Your task to perform on an android device: Search for "apple airpods pro" on target.com, select the first entry, add it to the cart, then select checkout. Image 0: 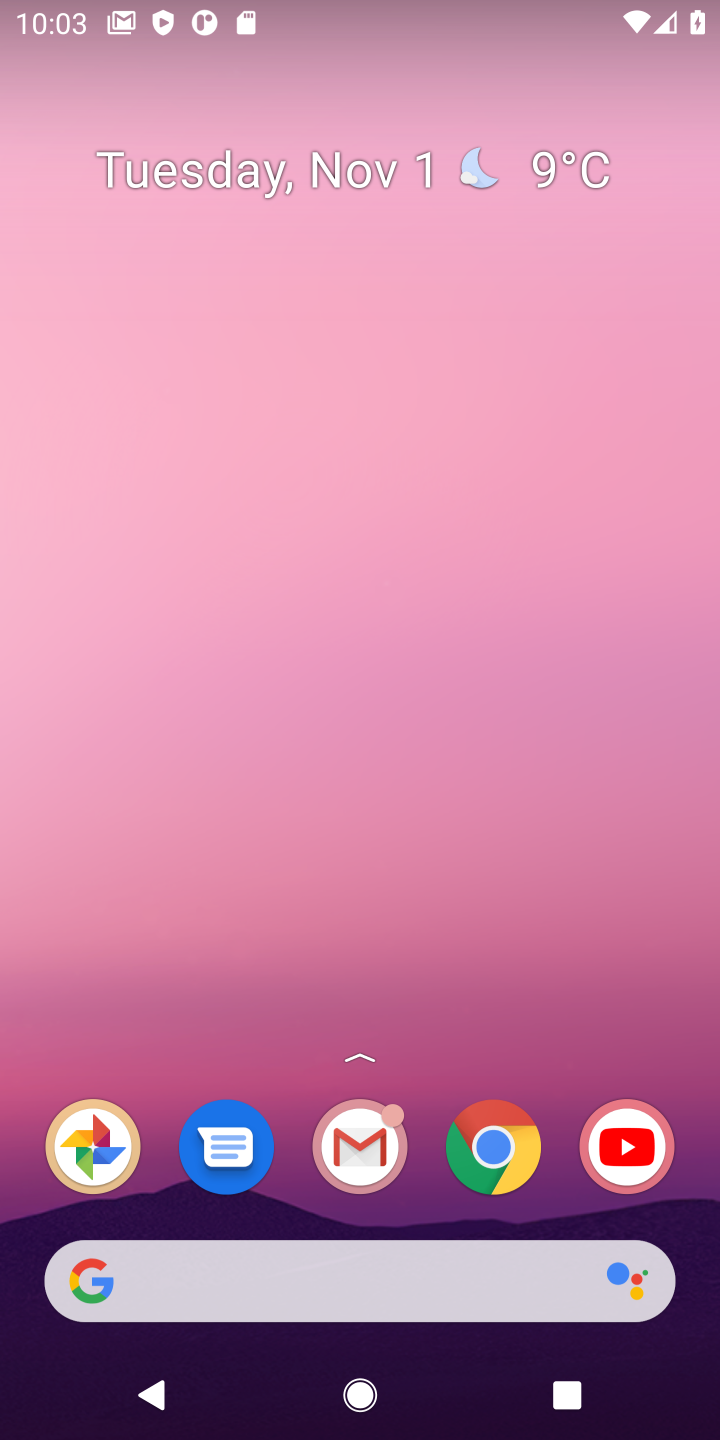
Step 0: click (483, 1137)
Your task to perform on an android device: Search for "apple airpods pro" on target.com, select the first entry, add it to the cart, then select checkout. Image 1: 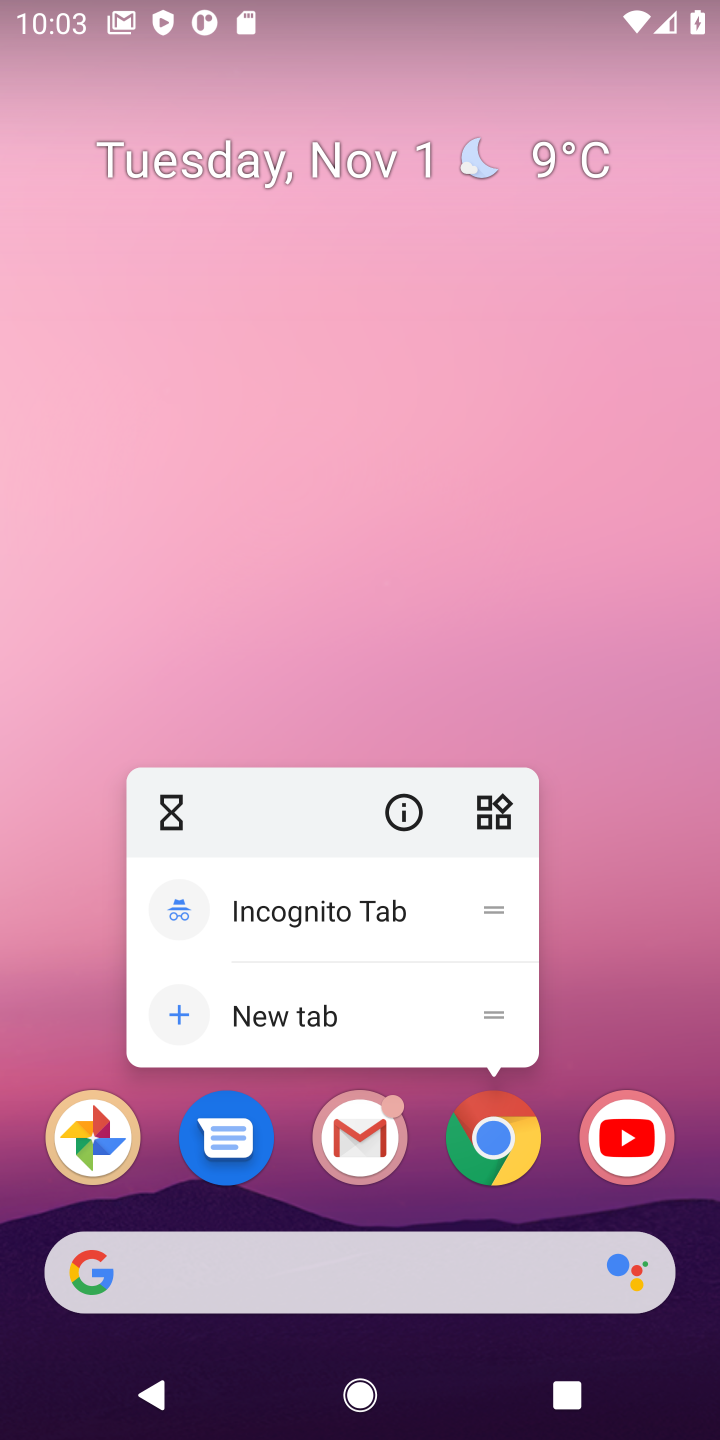
Step 1: click (487, 1157)
Your task to perform on an android device: Search for "apple airpods pro" on target.com, select the first entry, add it to the cart, then select checkout. Image 2: 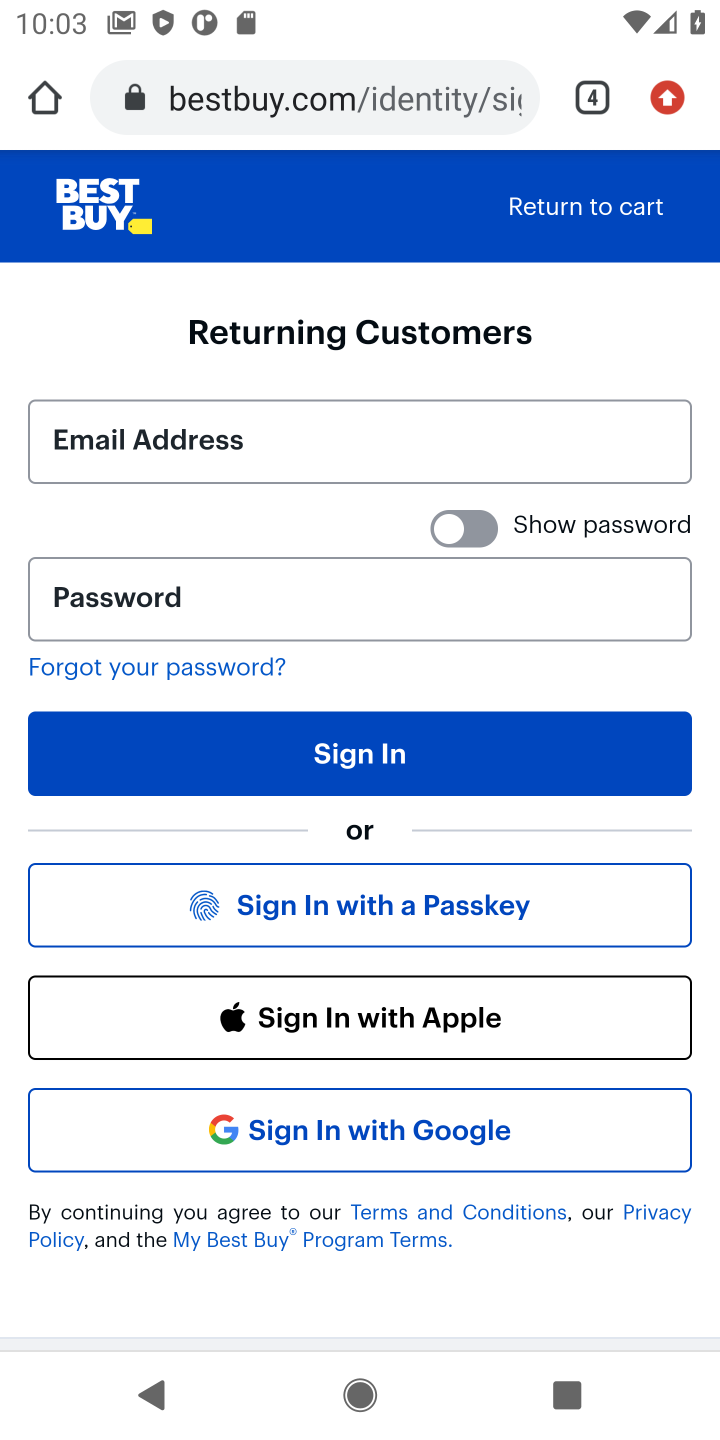
Step 2: click (598, 100)
Your task to perform on an android device: Search for "apple airpods pro" on target.com, select the first entry, add it to the cart, then select checkout. Image 3: 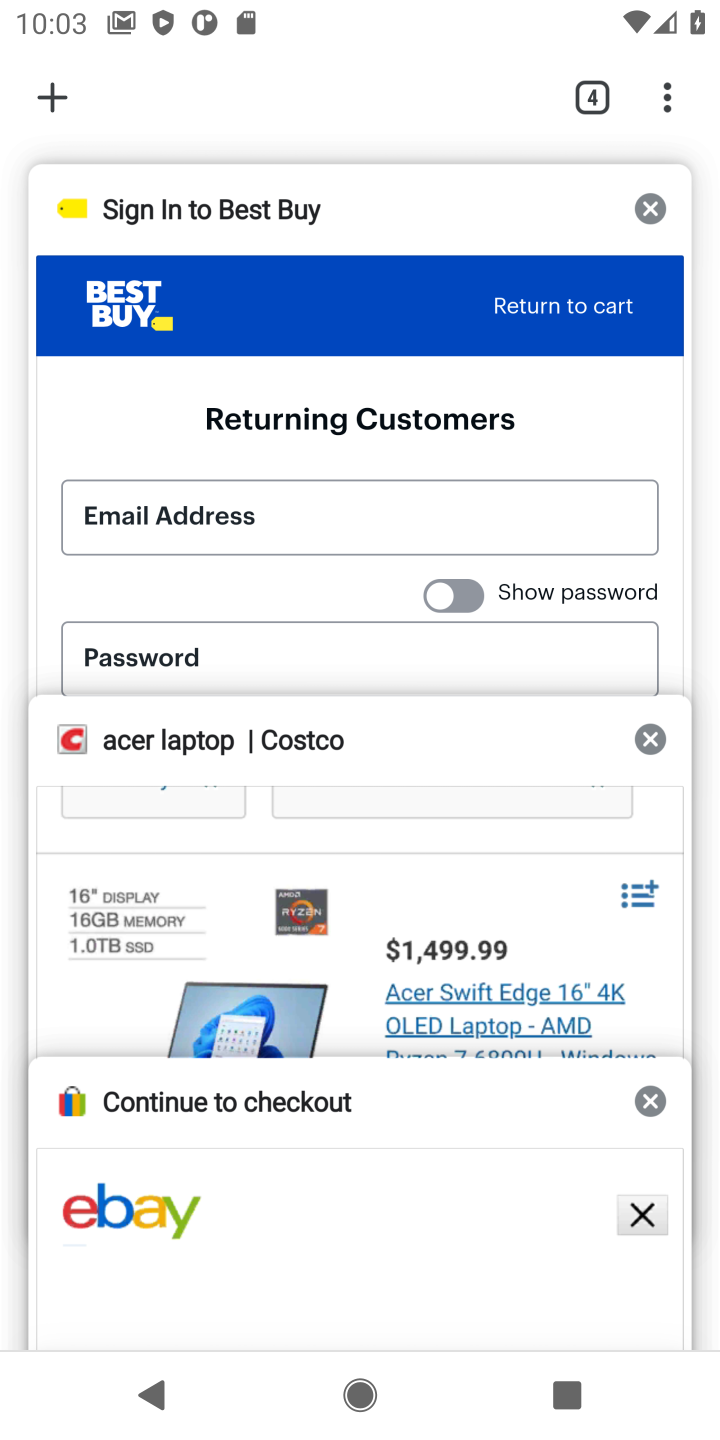
Step 3: drag from (203, 1172) to (294, 423)
Your task to perform on an android device: Search for "apple airpods pro" on target.com, select the first entry, add it to the cart, then select checkout. Image 4: 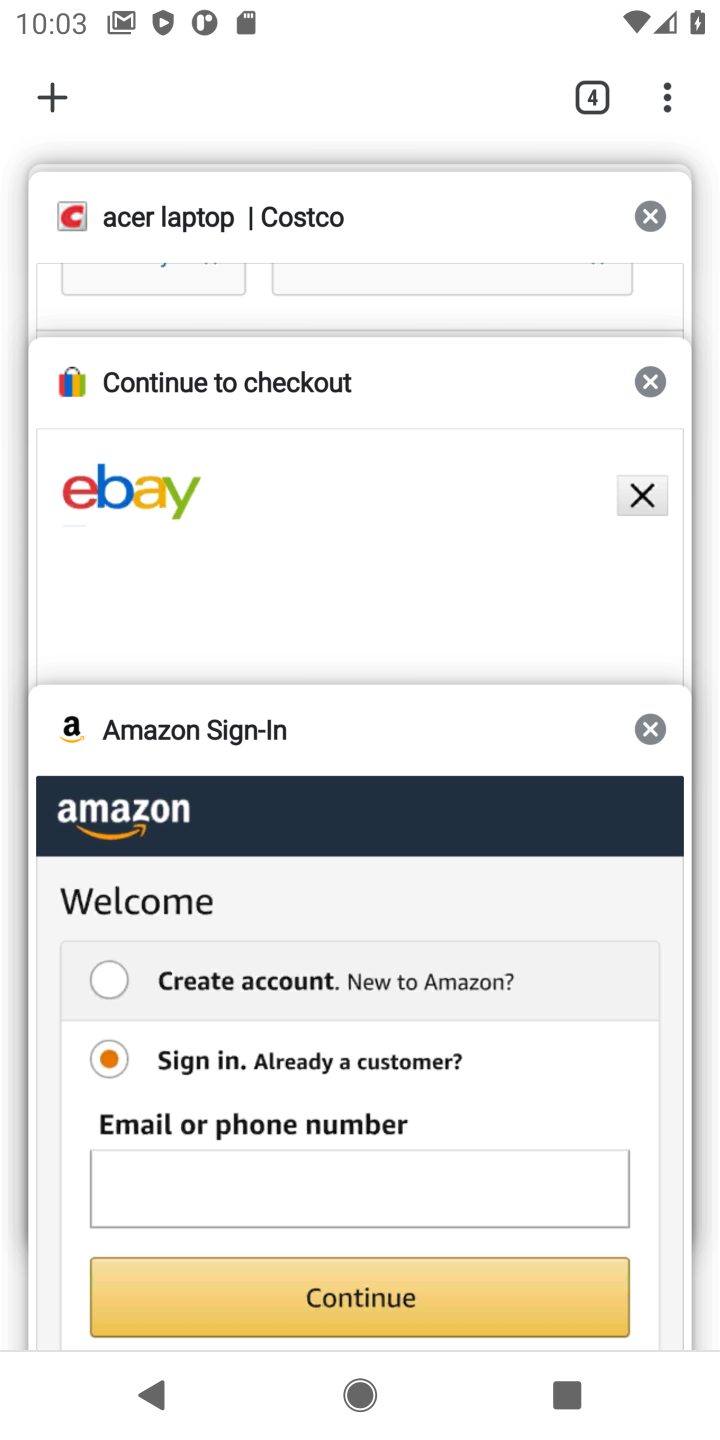
Step 4: click (53, 99)
Your task to perform on an android device: Search for "apple airpods pro" on target.com, select the first entry, add it to the cart, then select checkout. Image 5: 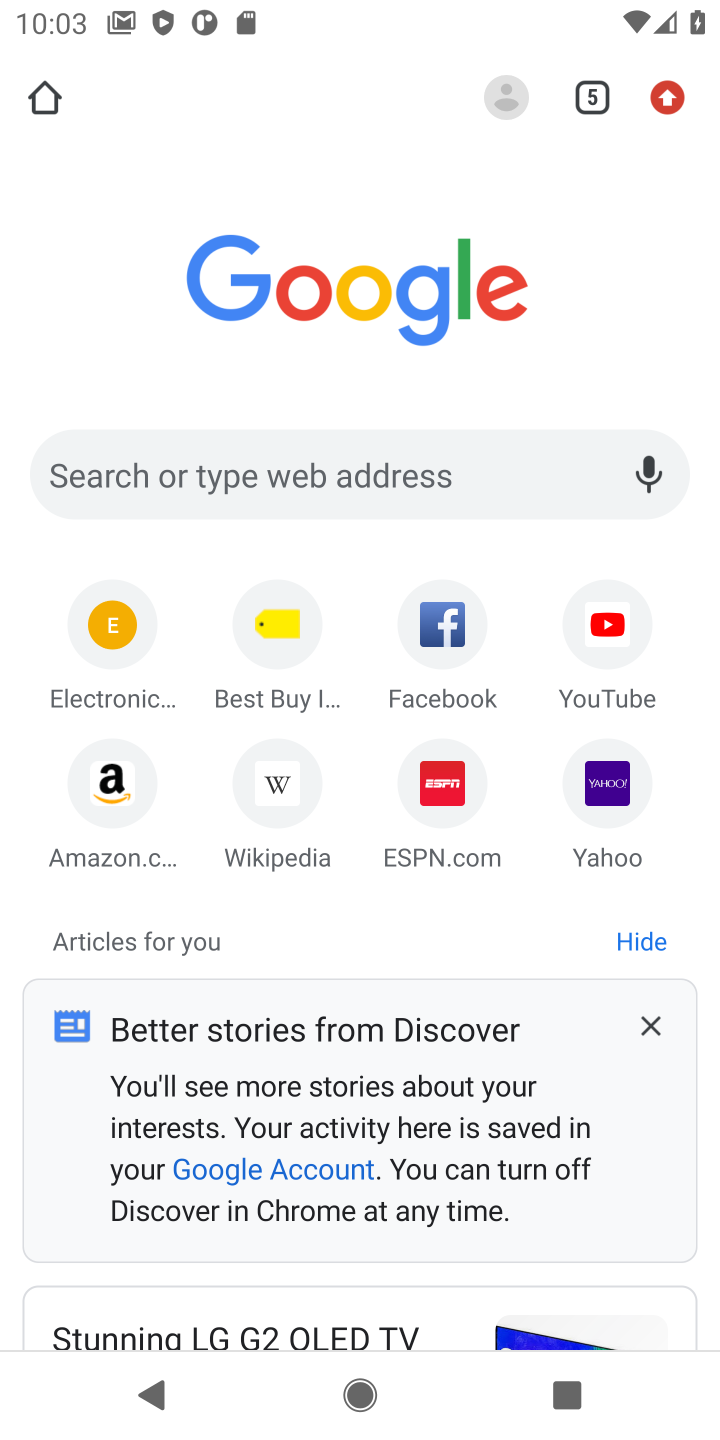
Step 5: click (338, 470)
Your task to perform on an android device: Search for "apple airpods pro" on target.com, select the first entry, add it to the cart, then select checkout. Image 6: 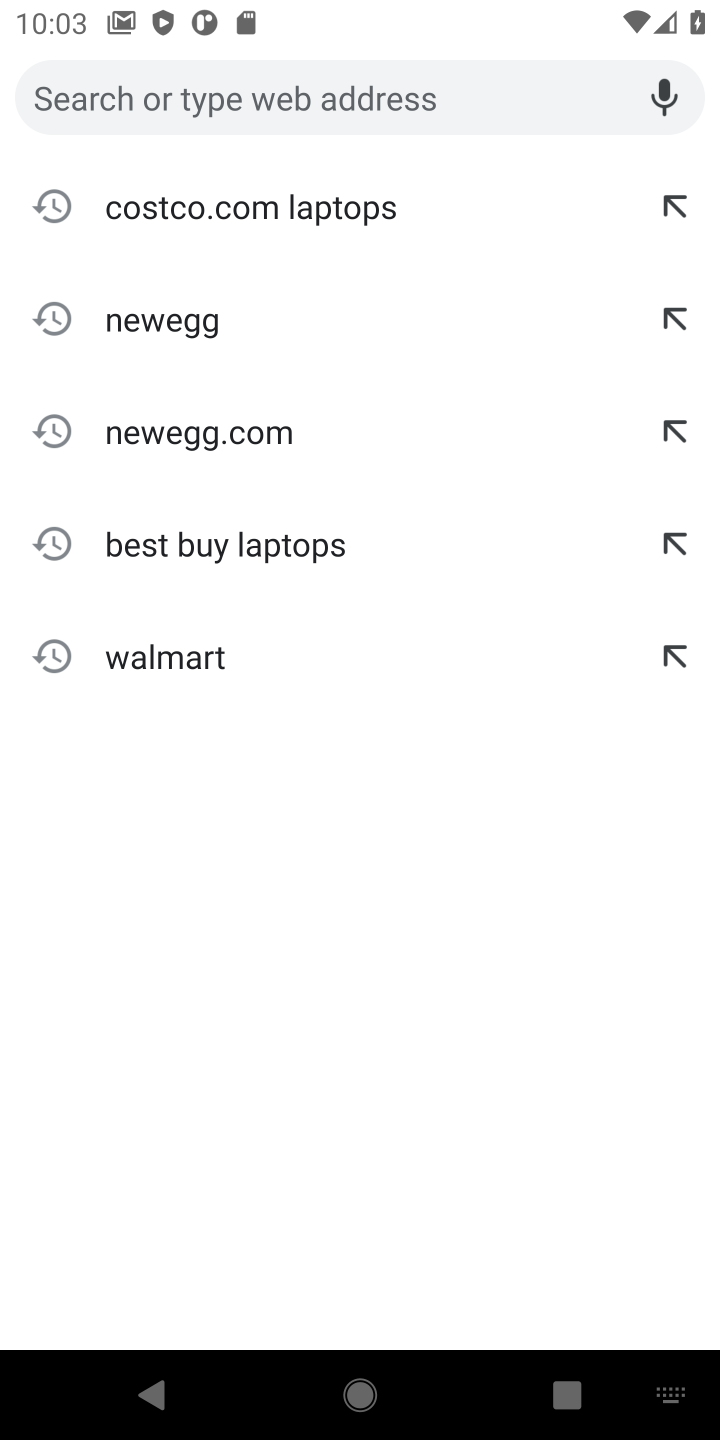
Step 6: type "target"
Your task to perform on an android device: Search for "apple airpods pro" on target.com, select the first entry, add it to the cart, then select checkout. Image 7: 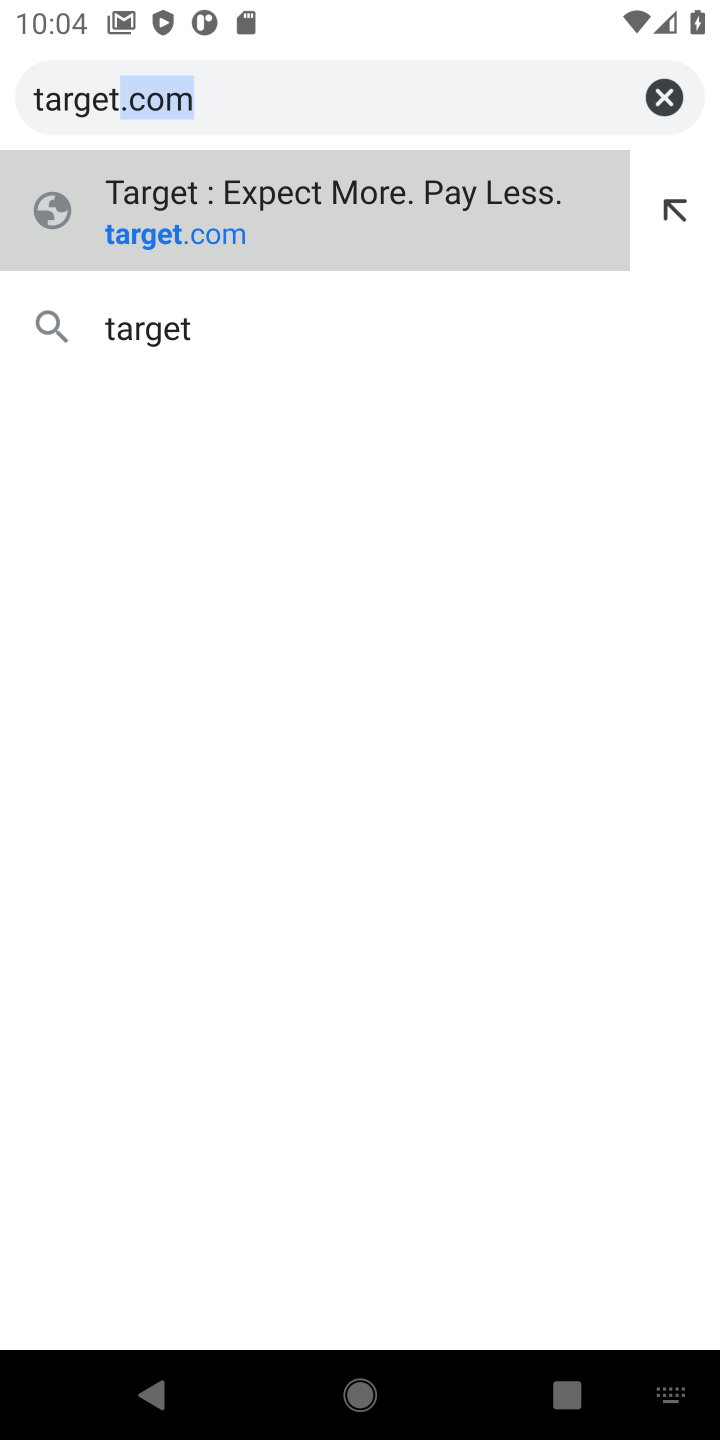
Step 7: click (324, 197)
Your task to perform on an android device: Search for "apple airpods pro" on target.com, select the first entry, add it to the cart, then select checkout. Image 8: 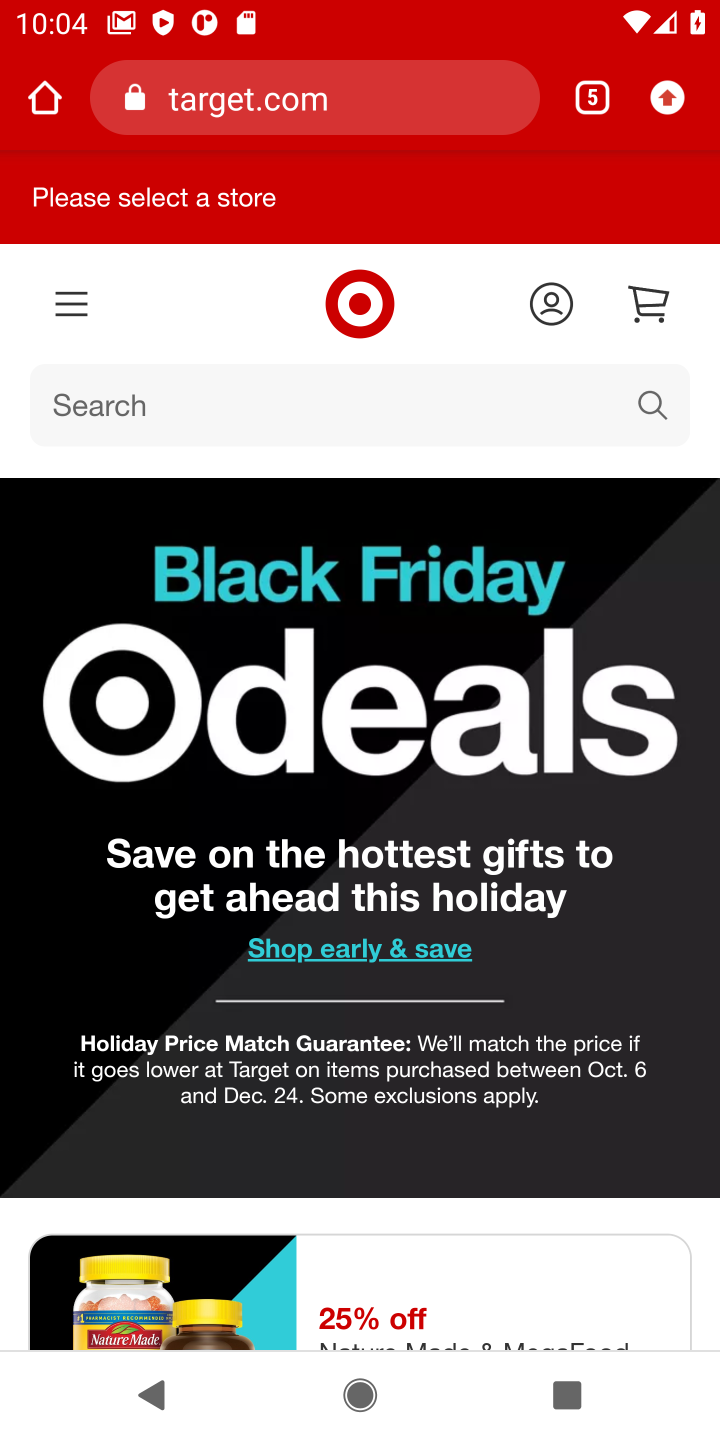
Step 8: click (162, 392)
Your task to perform on an android device: Search for "apple airpods pro" on target.com, select the first entry, add it to the cart, then select checkout. Image 9: 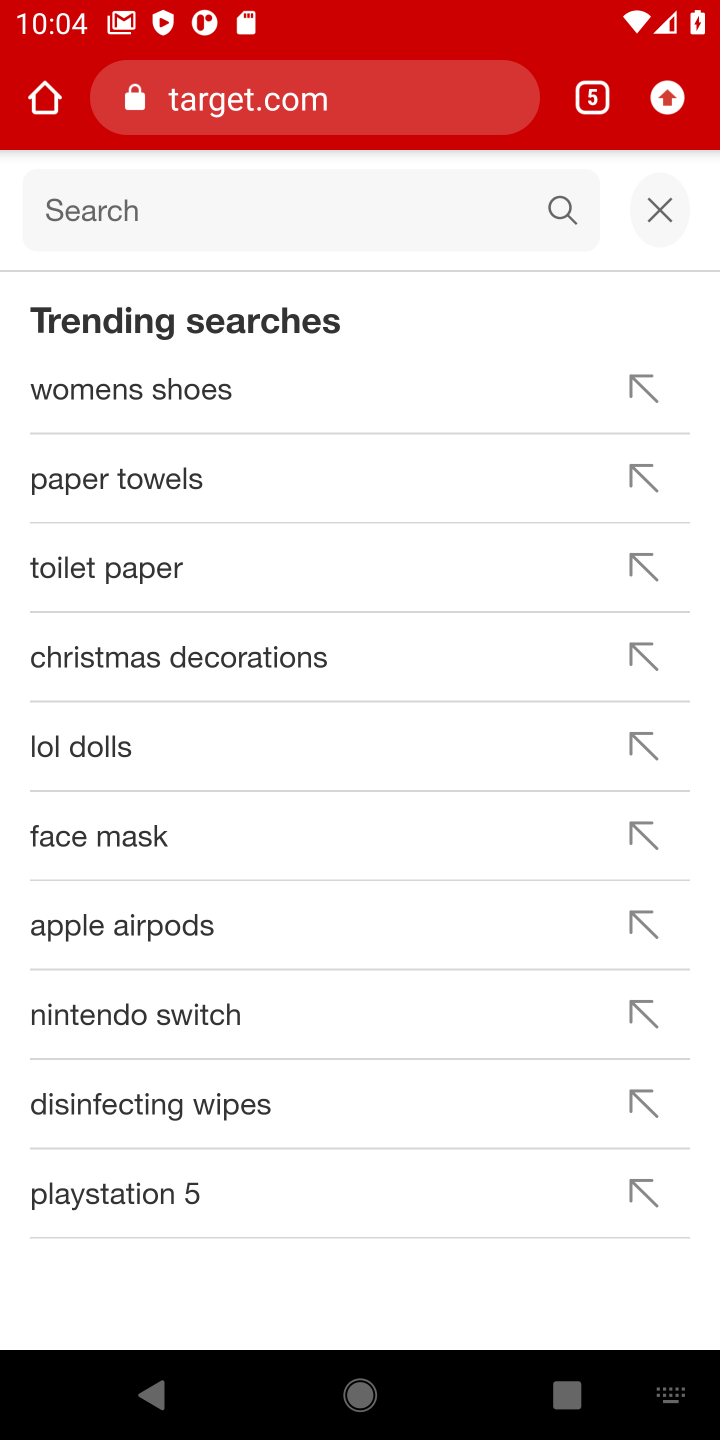
Step 9: type "apple airpods pro"
Your task to perform on an android device: Search for "apple airpods pro" on target.com, select the first entry, add it to the cart, then select checkout. Image 10: 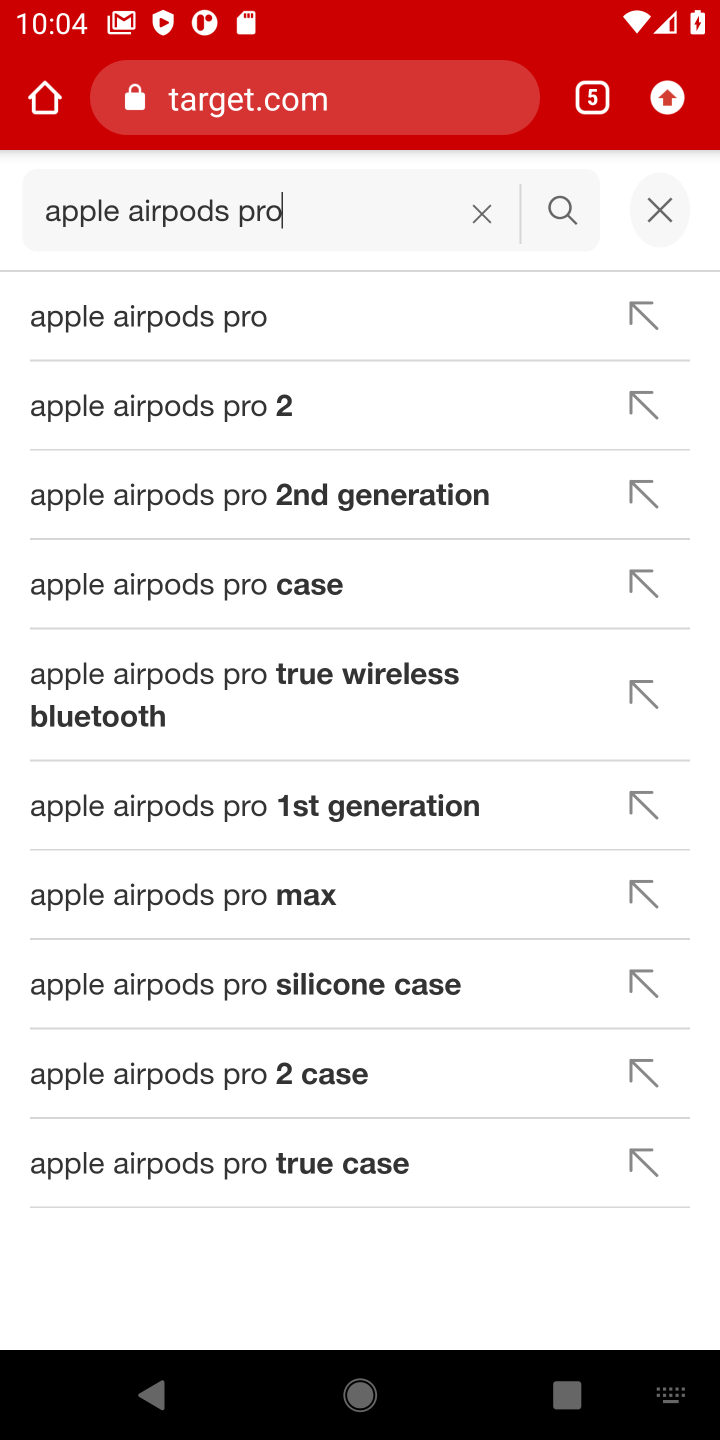
Step 10: click (204, 314)
Your task to perform on an android device: Search for "apple airpods pro" on target.com, select the first entry, add it to the cart, then select checkout. Image 11: 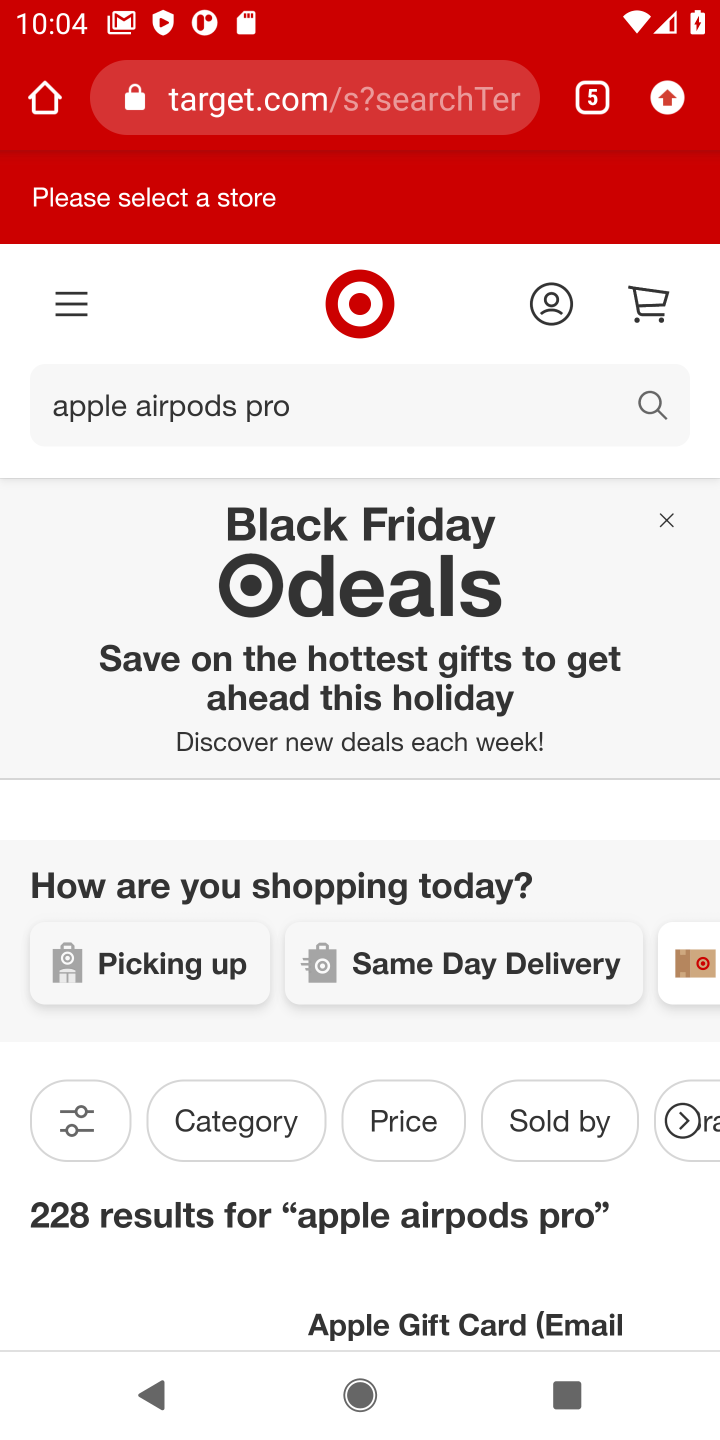
Step 11: drag from (553, 1262) to (584, 797)
Your task to perform on an android device: Search for "apple airpods pro" on target.com, select the first entry, add it to the cart, then select checkout. Image 12: 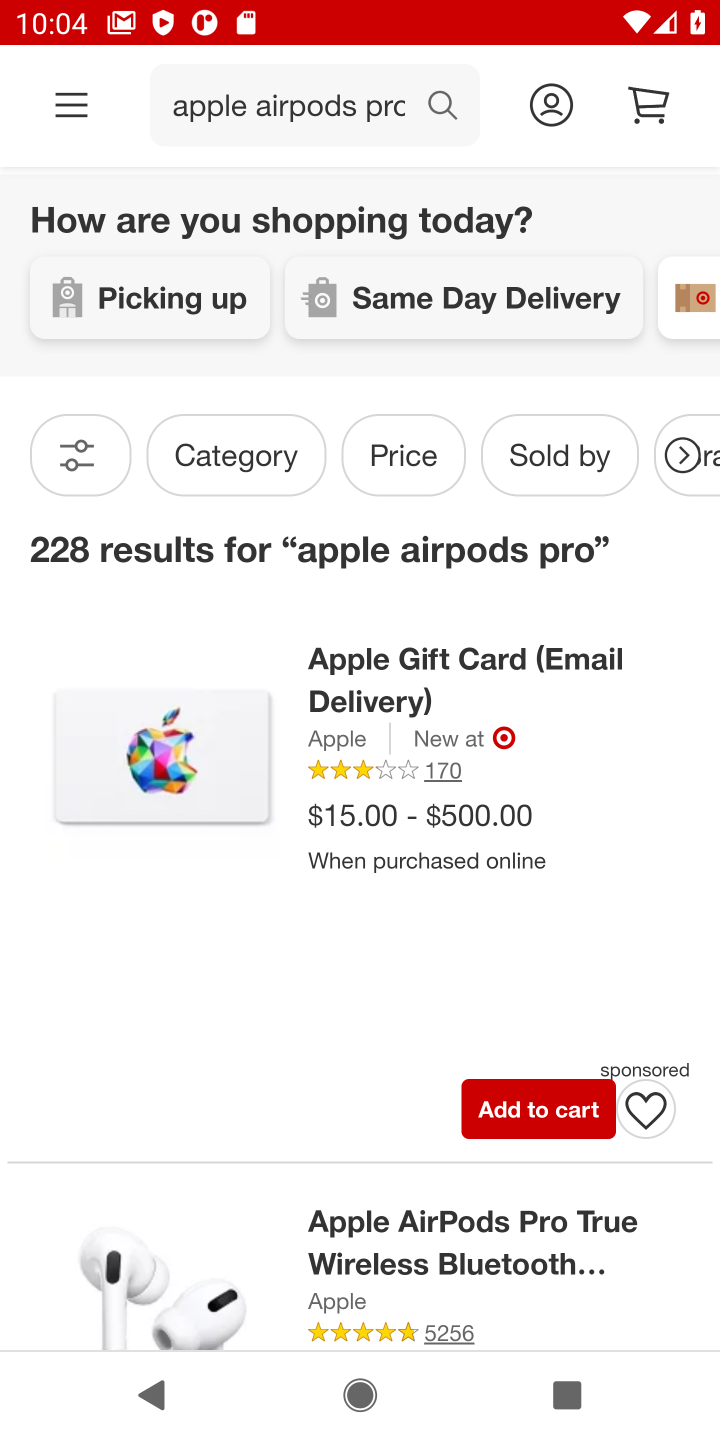
Step 12: click (546, 1121)
Your task to perform on an android device: Search for "apple airpods pro" on target.com, select the first entry, add it to the cart, then select checkout. Image 13: 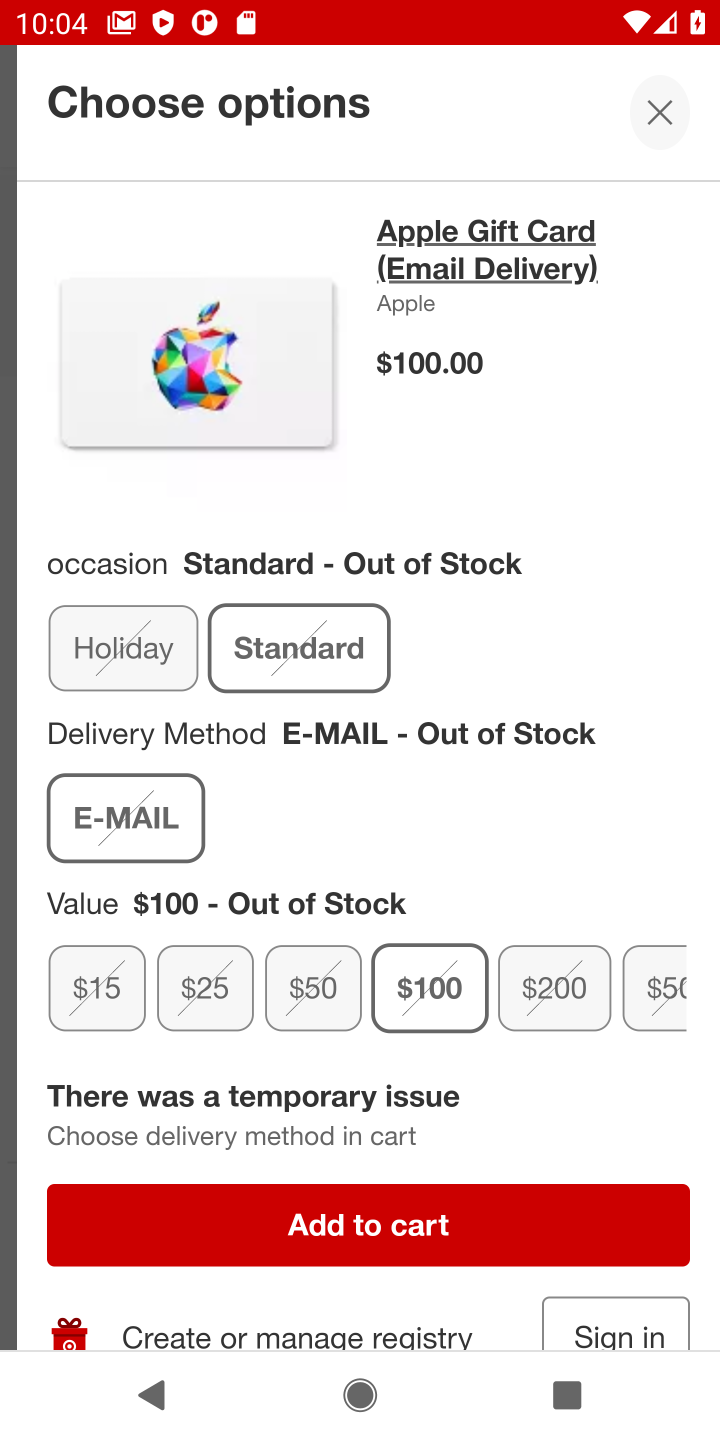
Step 13: click (412, 1239)
Your task to perform on an android device: Search for "apple airpods pro" on target.com, select the first entry, add it to the cart, then select checkout. Image 14: 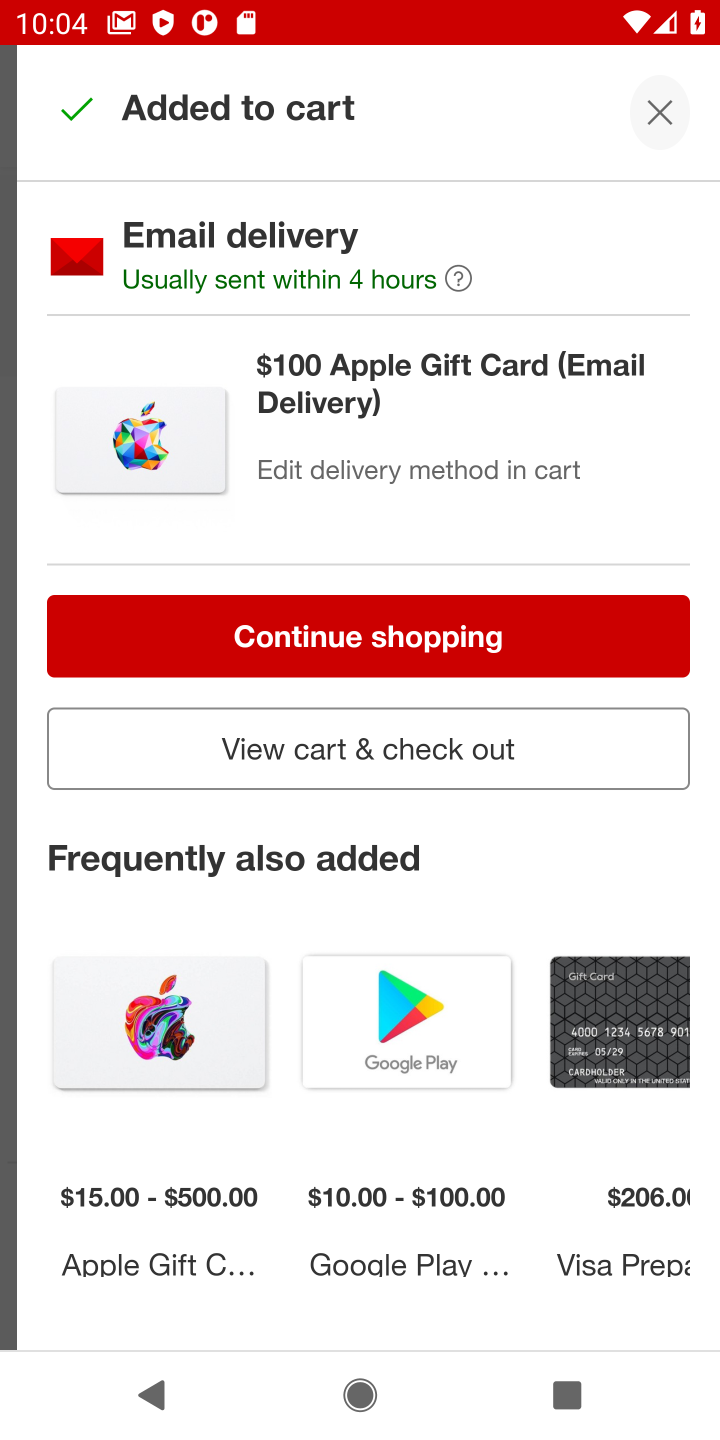
Step 14: click (584, 721)
Your task to perform on an android device: Search for "apple airpods pro" on target.com, select the first entry, add it to the cart, then select checkout. Image 15: 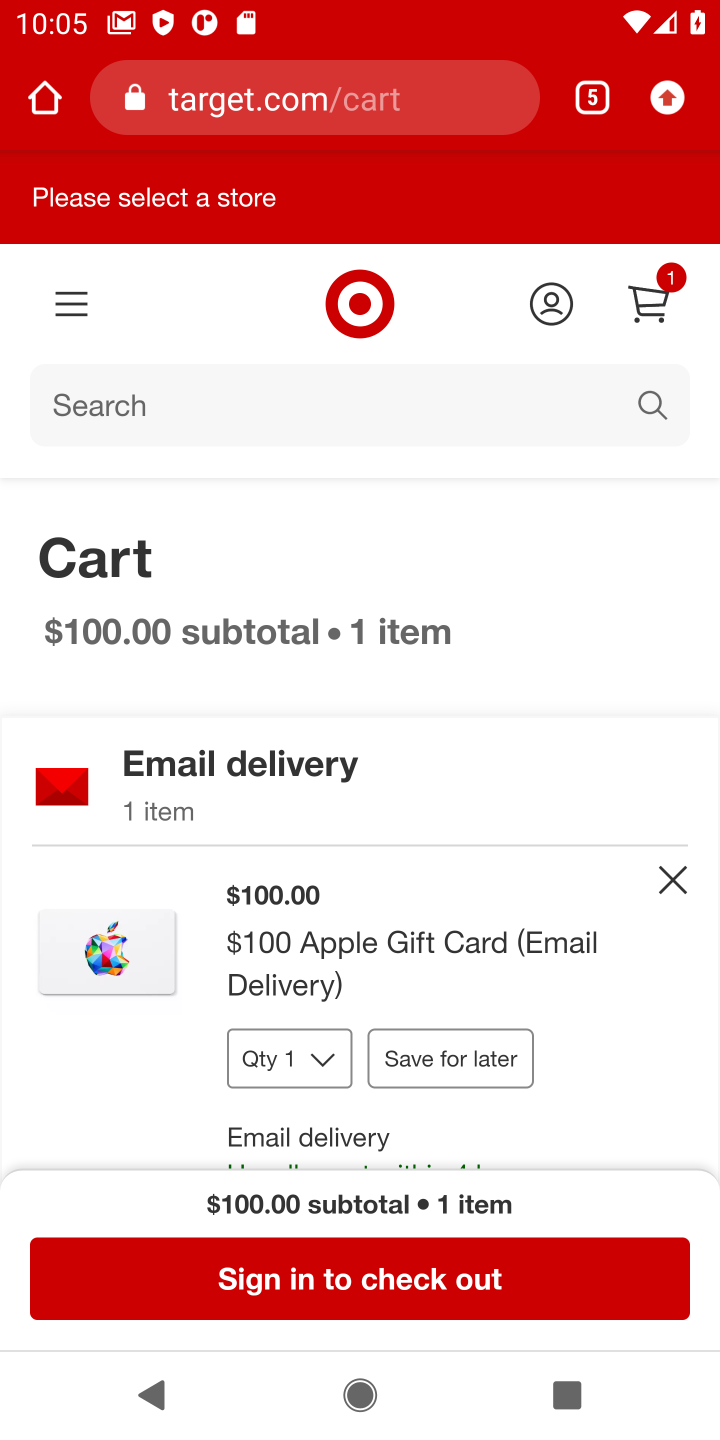
Step 15: task complete